Your task to perform on an android device: turn notification dots off Image 0: 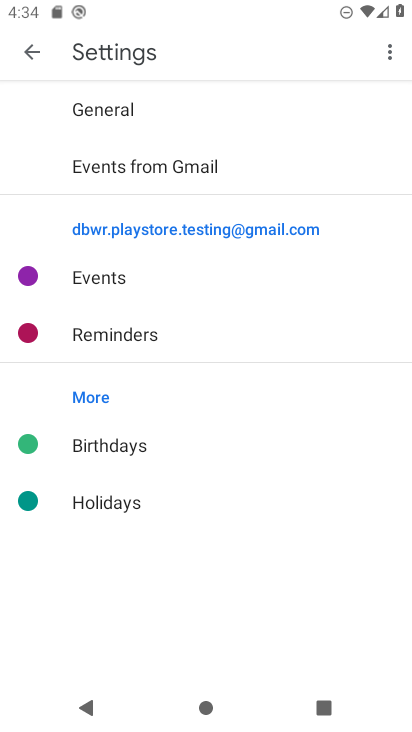
Step 0: press home button
Your task to perform on an android device: turn notification dots off Image 1: 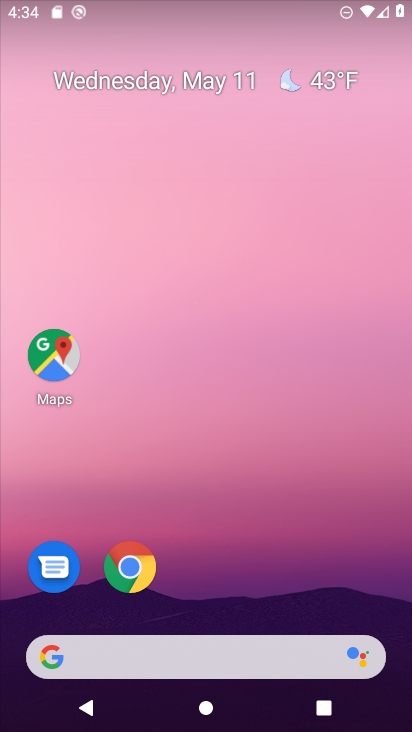
Step 1: drag from (263, 616) to (355, 214)
Your task to perform on an android device: turn notification dots off Image 2: 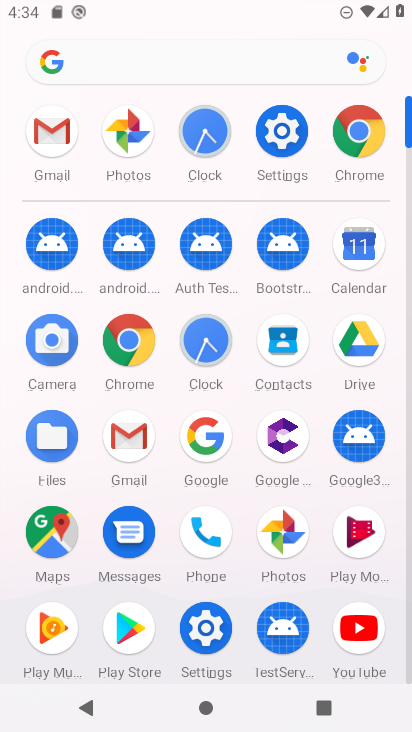
Step 2: click (282, 139)
Your task to perform on an android device: turn notification dots off Image 3: 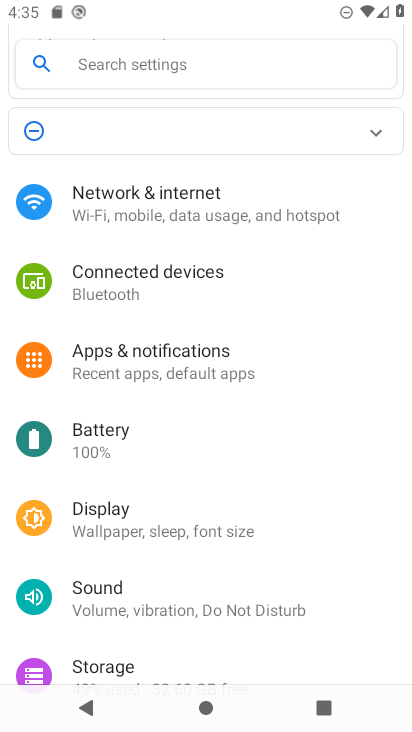
Step 3: click (234, 372)
Your task to perform on an android device: turn notification dots off Image 4: 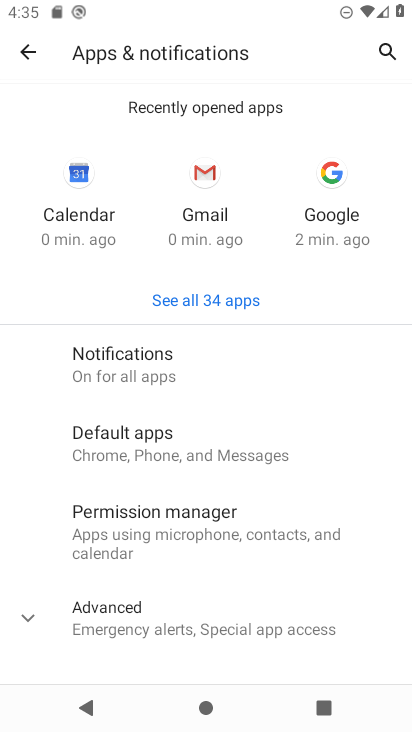
Step 4: click (233, 372)
Your task to perform on an android device: turn notification dots off Image 5: 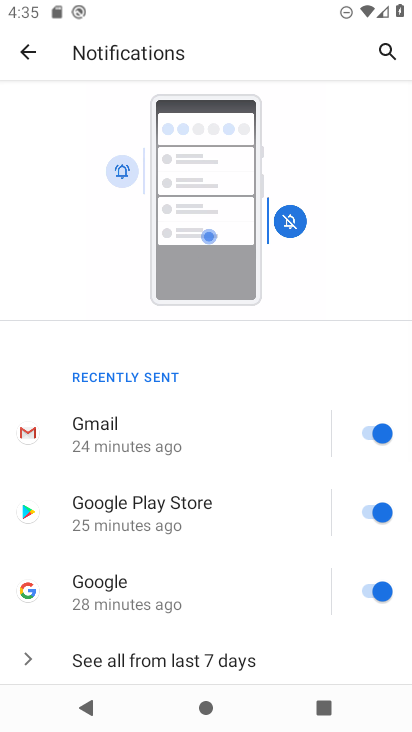
Step 5: drag from (256, 540) to (330, 212)
Your task to perform on an android device: turn notification dots off Image 6: 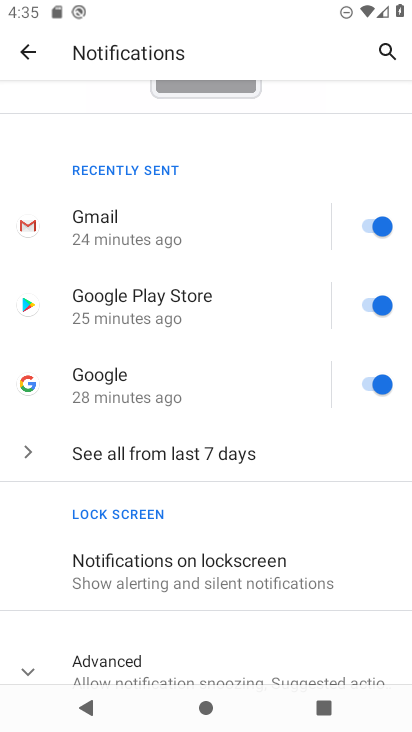
Step 6: drag from (332, 610) to (302, 318)
Your task to perform on an android device: turn notification dots off Image 7: 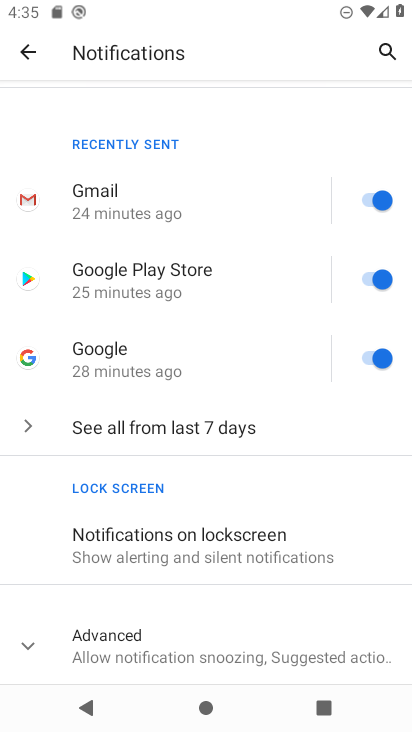
Step 7: click (205, 540)
Your task to perform on an android device: turn notification dots off Image 8: 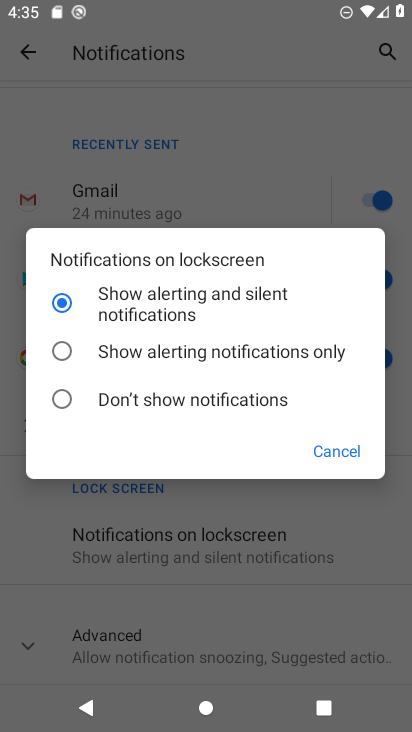
Step 8: click (334, 456)
Your task to perform on an android device: turn notification dots off Image 9: 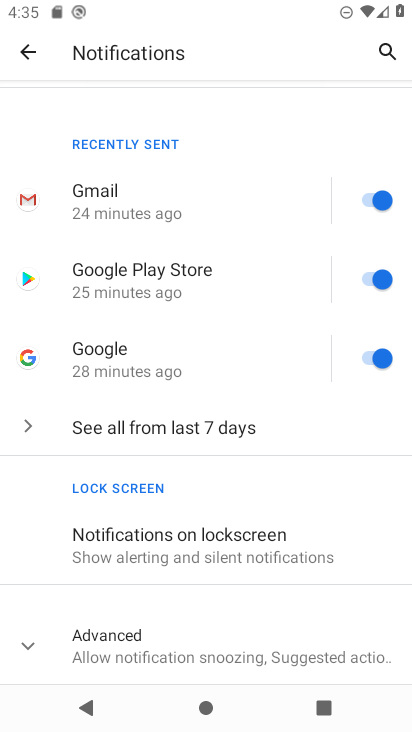
Step 9: click (144, 650)
Your task to perform on an android device: turn notification dots off Image 10: 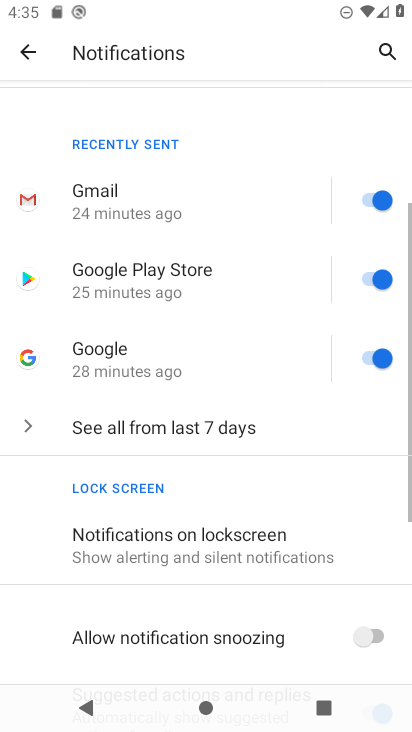
Step 10: task complete